Your task to perform on an android device: Open internet settings Image 0: 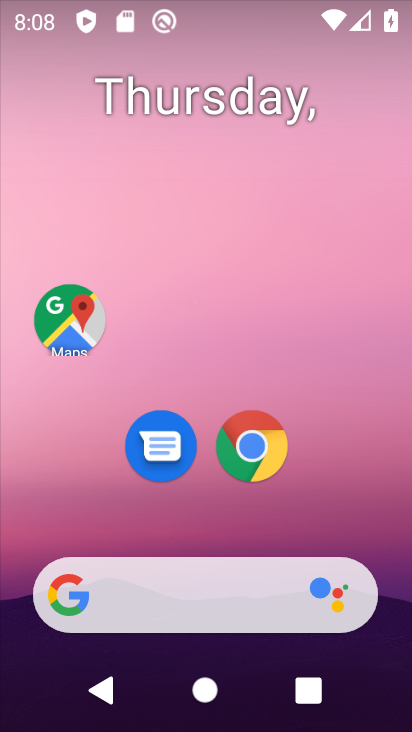
Step 0: drag from (65, 382) to (206, 139)
Your task to perform on an android device: Open internet settings Image 1: 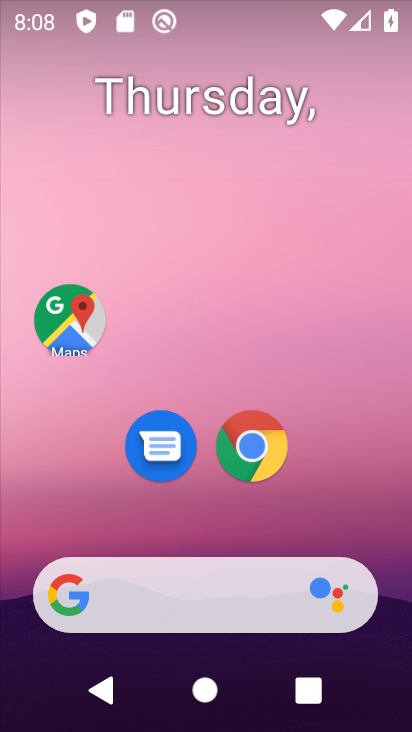
Step 1: drag from (39, 571) to (307, 76)
Your task to perform on an android device: Open internet settings Image 2: 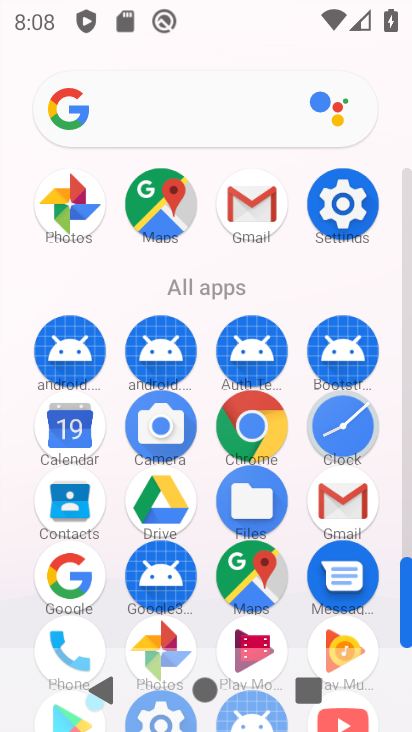
Step 2: click (351, 200)
Your task to perform on an android device: Open internet settings Image 3: 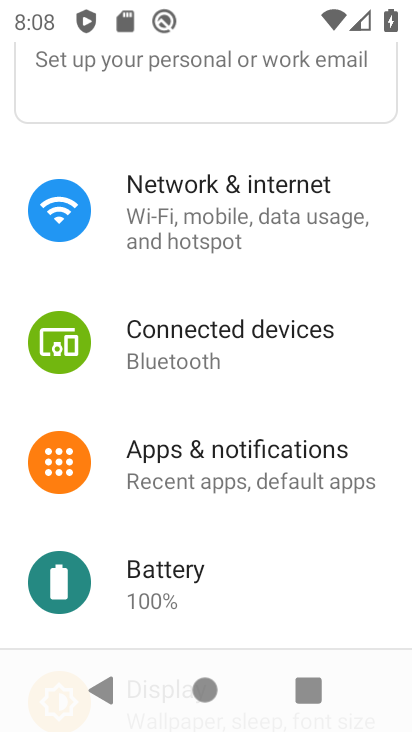
Step 3: click (292, 251)
Your task to perform on an android device: Open internet settings Image 4: 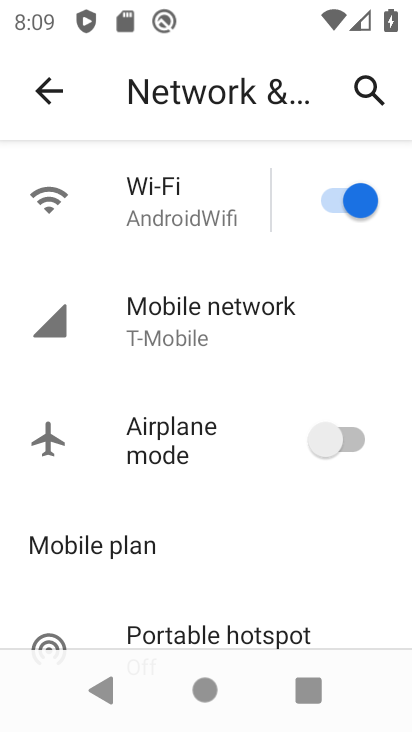
Step 4: click (111, 314)
Your task to perform on an android device: Open internet settings Image 5: 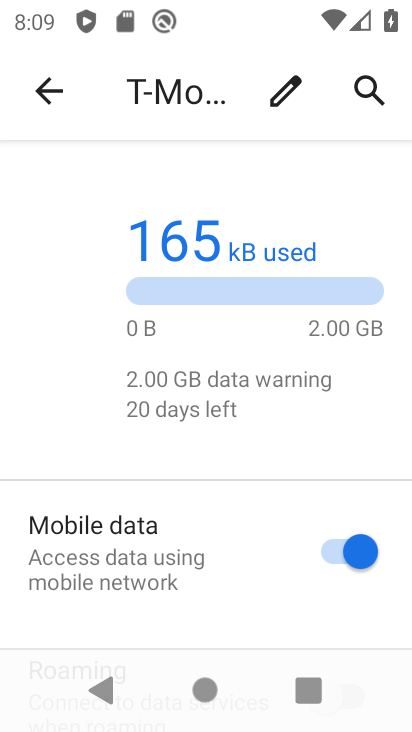
Step 5: task complete